Your task to perform on an android device: delete location history Image 0: 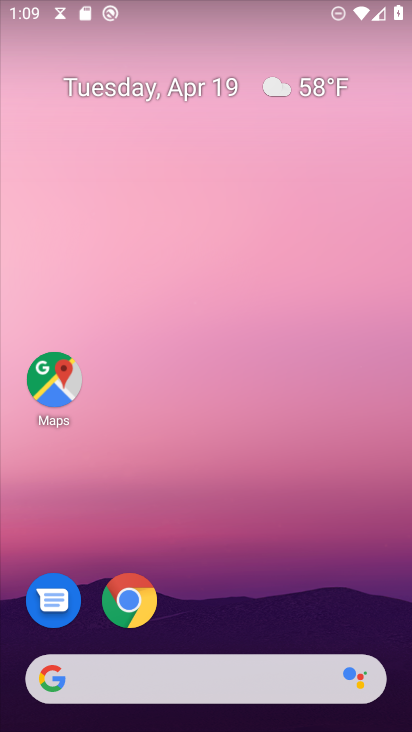
Step 0: click (141, 614)
Your task to perform on an android device: delete location history Image 1: 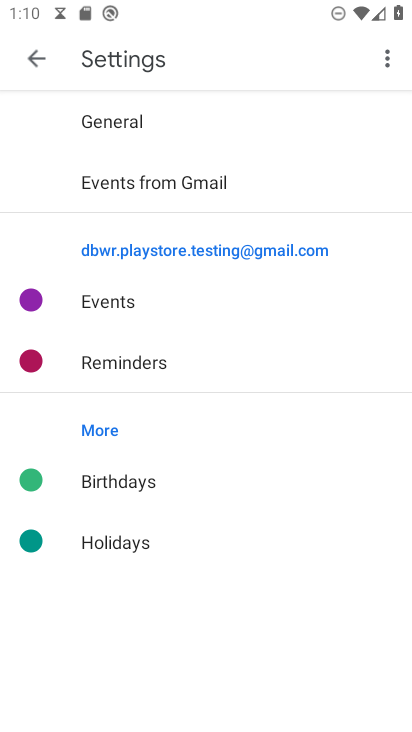
Step 1: press home button
Your task to perform on an android device: delete location history Image 2: 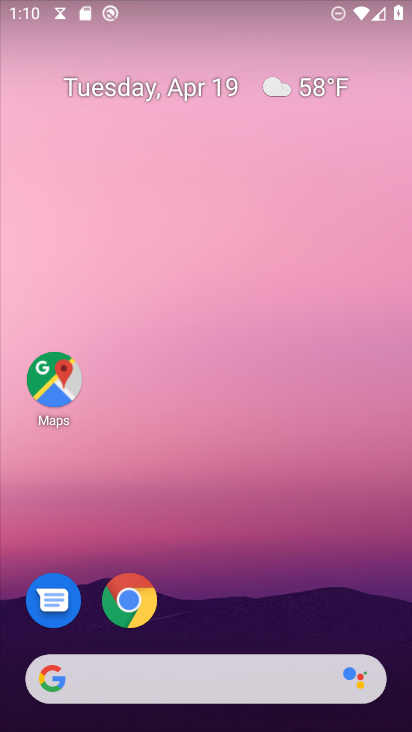
Step 2: click (52, 368)
Your task to perform on an android device: delete location history Image 3: 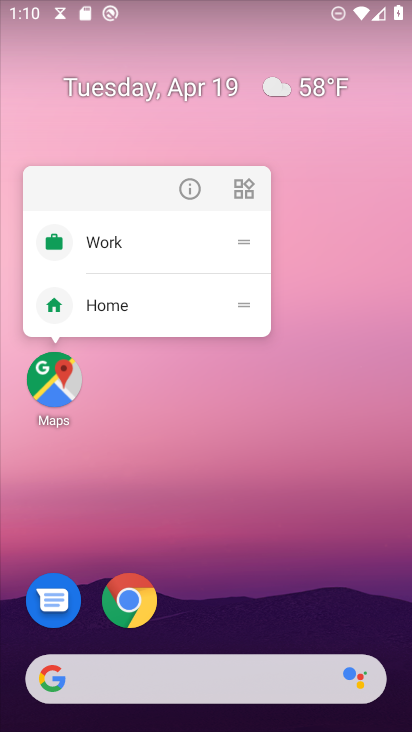
Step 3: click (52, 368)
Your task to perform on an android device: delete location history Image 4: 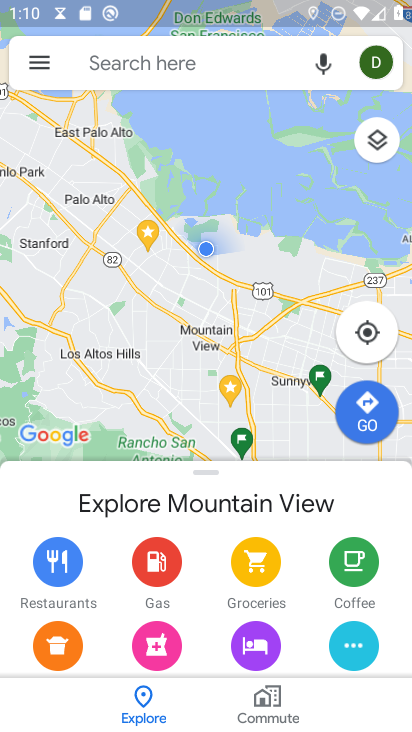
Step 4: click (47, 64)
Your task to perform on an android device: delete location history Image 5: 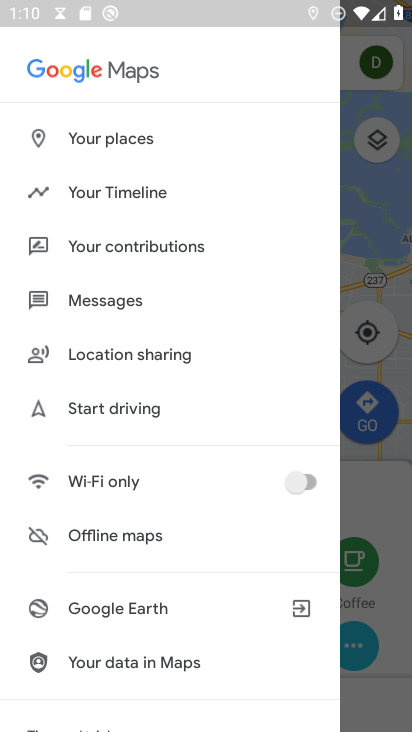
Step 5: click (101, 192)
Your task to perform on an android device: delete location history Image 6: 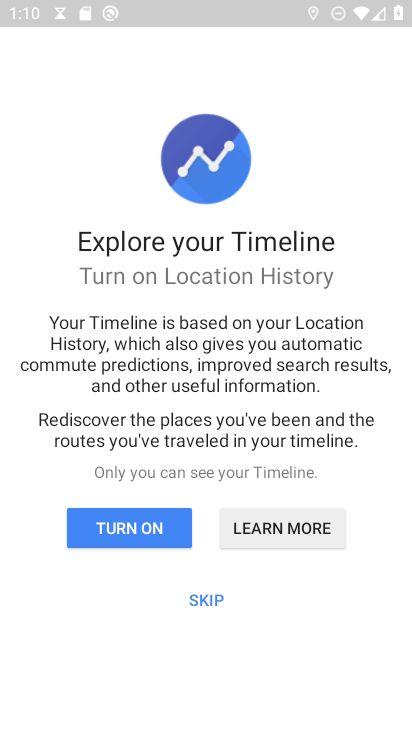
Step 6: click (155, 536)
Your task to perform on an android device: delete location history Image 7: 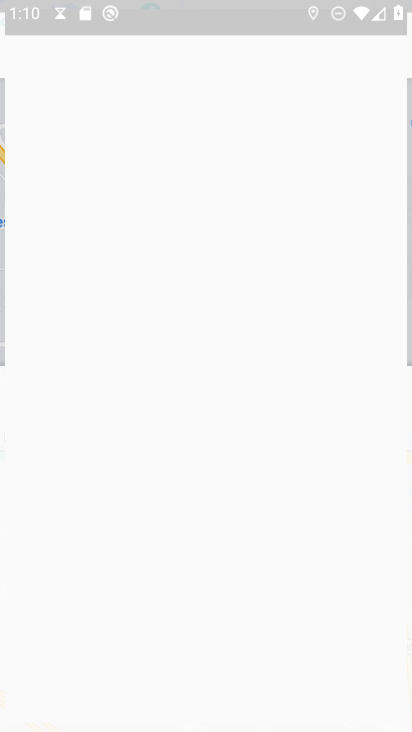
Step 7: click (392, 60)
Your task to perform on an android device: delete location history Image 8: 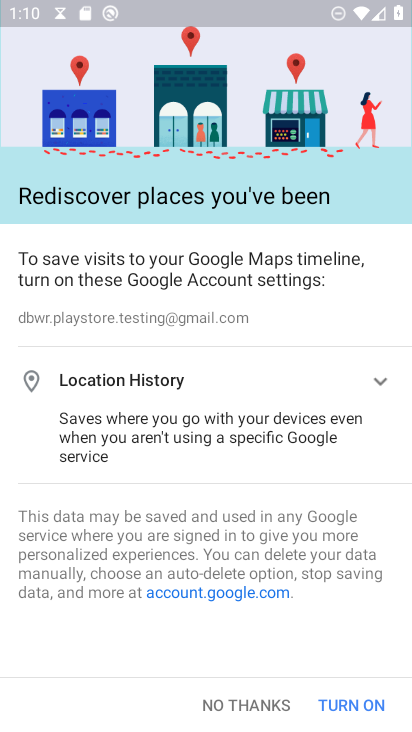
Step 8: click (337, 698)
Your task to perform on an android device: delete location history Image 9: 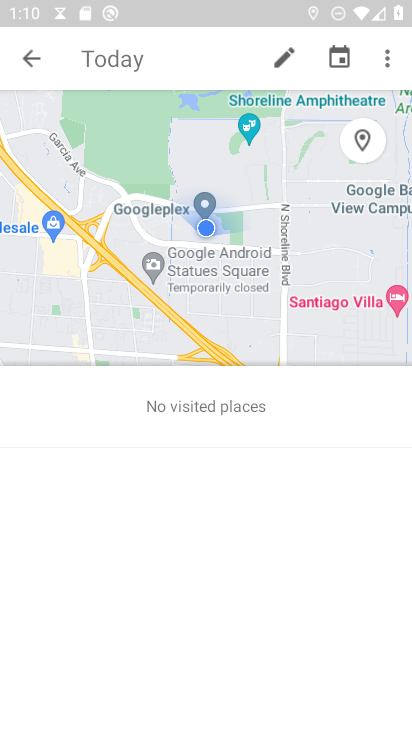
Step 9: click (382, 51)
Your task to perform on an android device: delete location history Image 10: 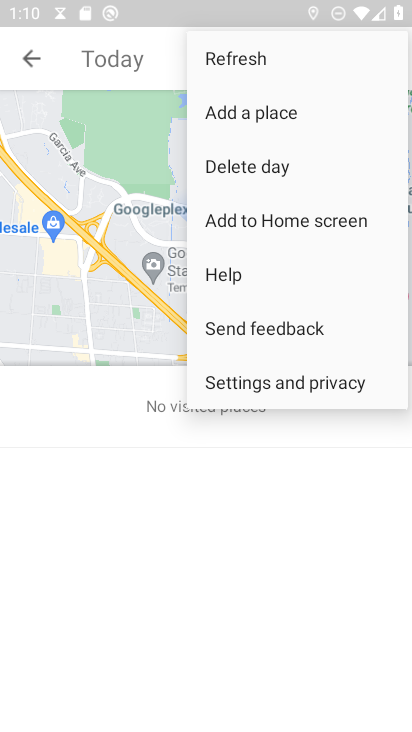
Step 10: click (251, 375)
Your task to perform on an android device: delete location history Image 11: 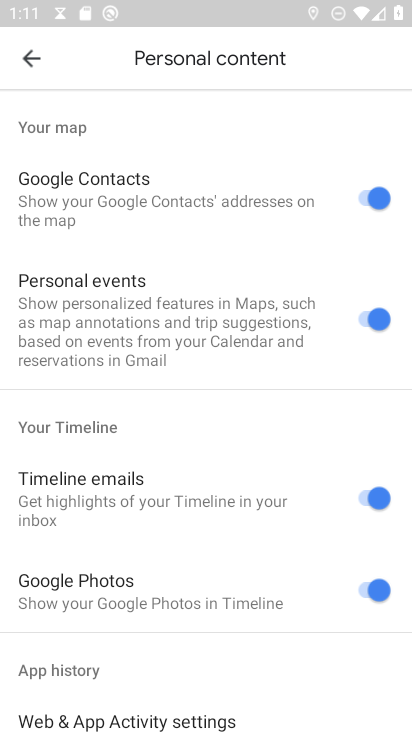
Step 11: drag from (173, 609) to (107, 36)
Your task to perform on an android device: delete location history Image 12: 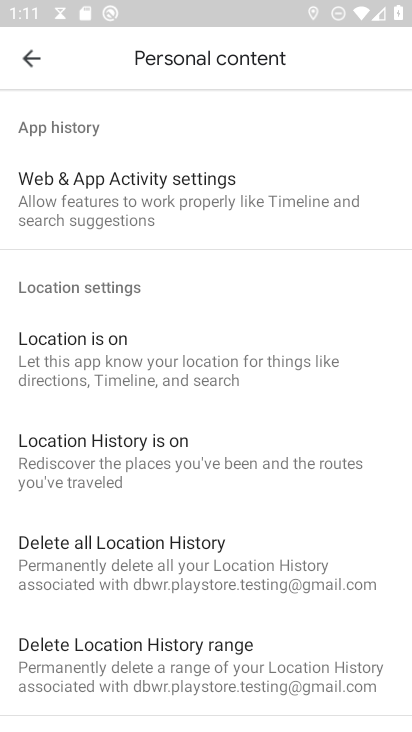
Step 12: click (184, 567)
Your task to perform on an android device: delete location history Image 13: 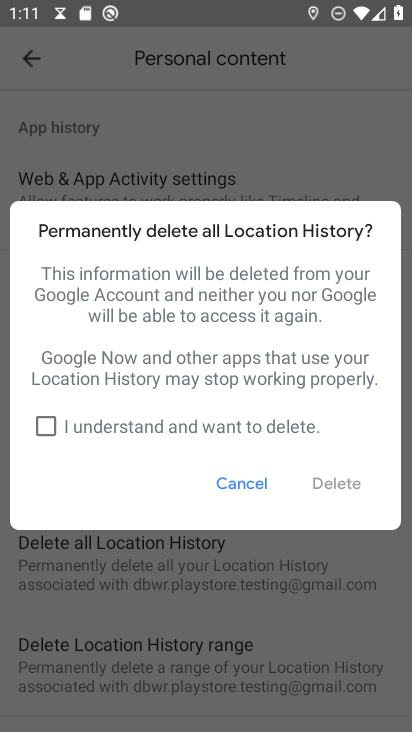
Step 13: click (142, 433)
Your task to perform on an android device: delete location history Image 14: 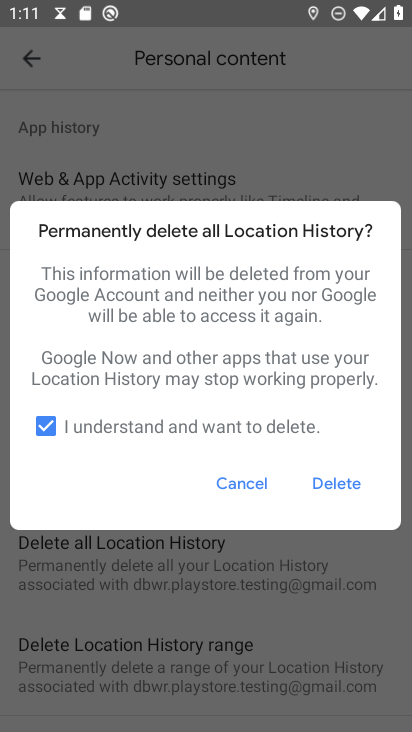
Step 14: click (327, 482)
Your task to perform on an android device: delete location history Image 15: 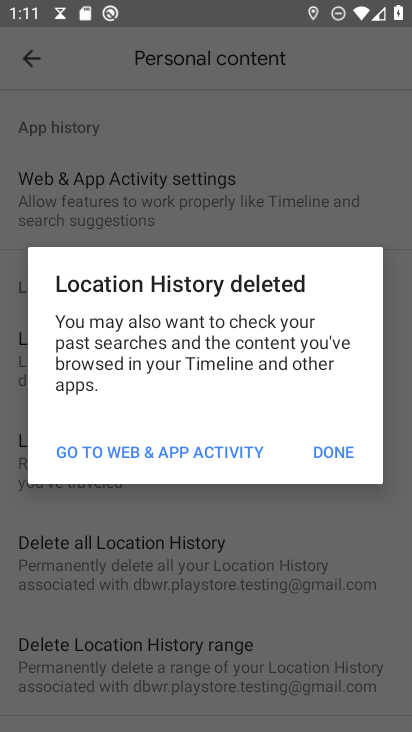
Step 15: click (345, 447)
Your task to perform on an android device: delete location history Image 16: 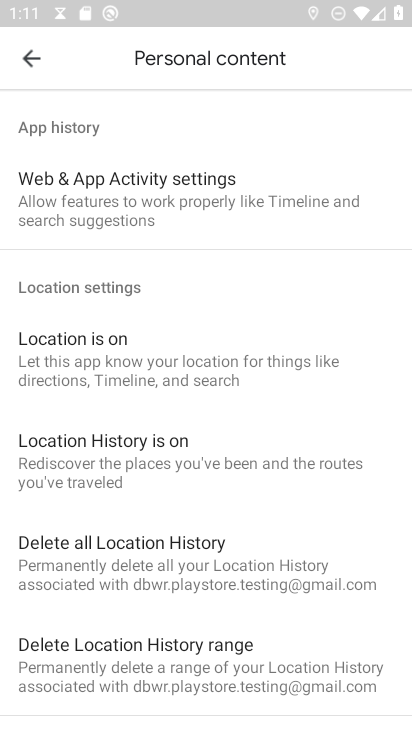
Step 16: task complete